Your task to perform on an android device: turn on translation in the chrome app Image 0: 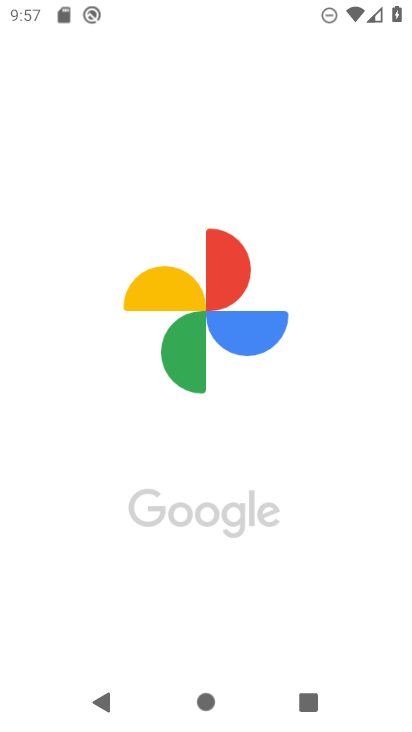
Step 0: drag from (367, 532) to (374, 117)
Your task to perform on an android device: turn on translation in the chrome app Image 1: 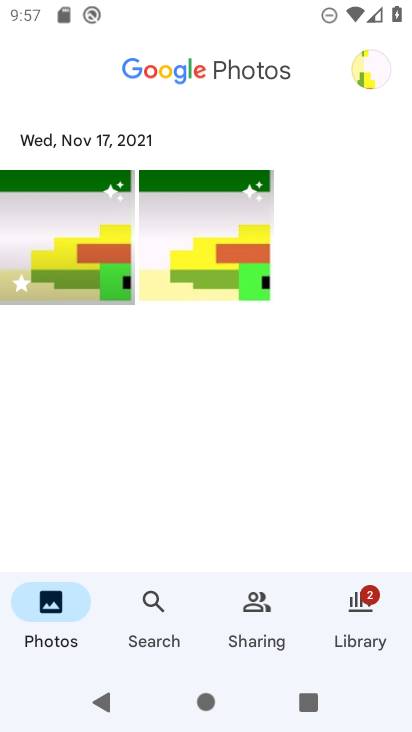
Step 1: press home button
Your task to perform on an android device: turn on translation in the chrome app Image 2: 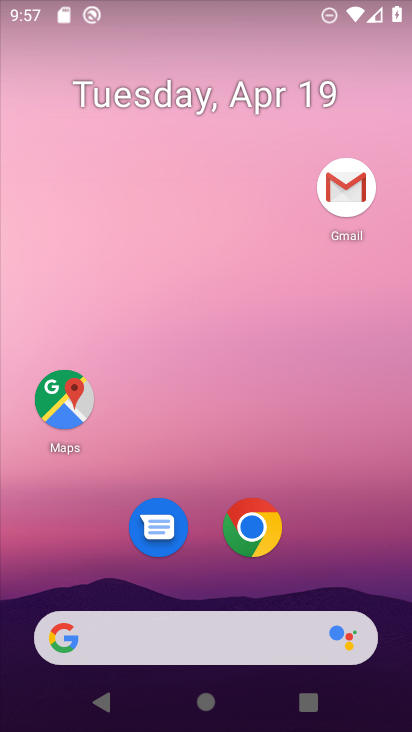
Step 2: drag from (334, 562) to (345, 97)
Your task to perform on an android device: turn on translation in the chrome app Image 3: 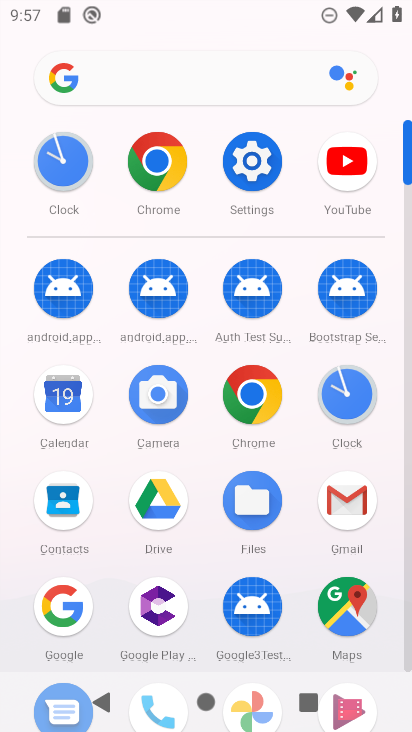
Step 3: click (159, 172)
Your task to perform on an android device: turn on translation in the chrome app Image 4: 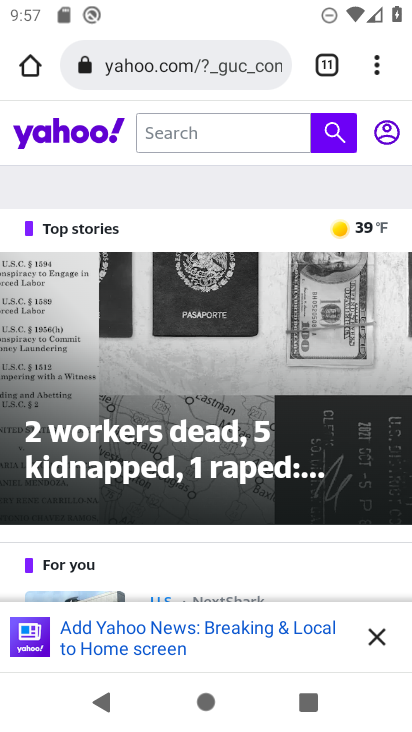
Step 4: drag from (378, 73) to (220, 544)
Your task to perform on an android device: turn on translation in the chrome app Image 5: 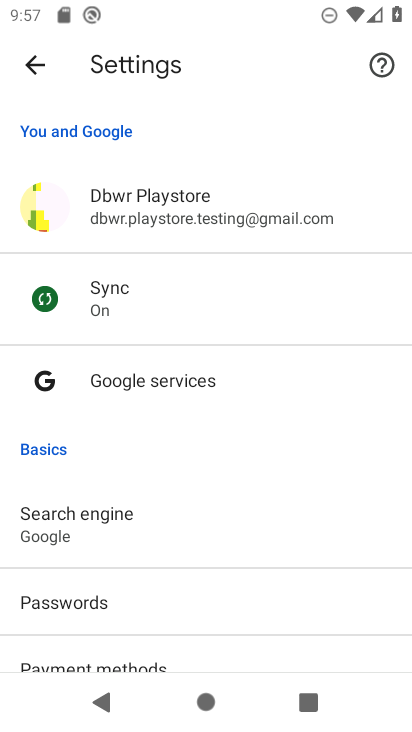
Step 5: drag from (317, 572) to (328, 144)
Your task to perform on an android device: turn on translation in the chrome app Image 6: 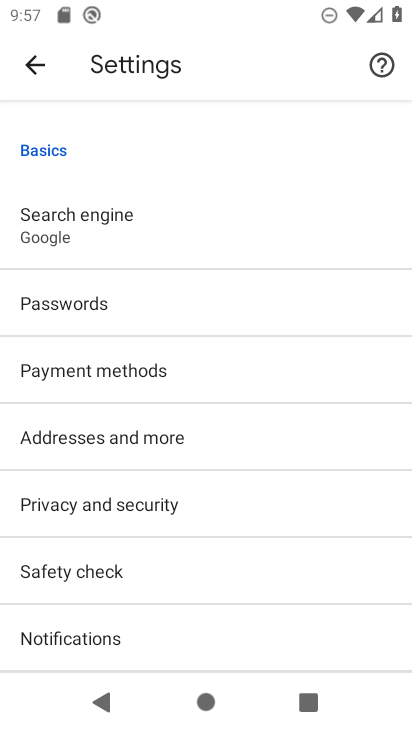
Step 6: drag from (312, 575) to (303, 231)
Your task to perform on an android device: turn on translation in the chrome app Image 7: 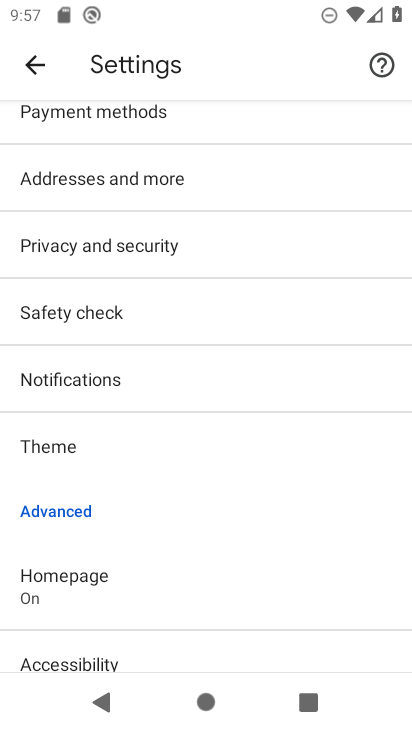
Step 7: drag from (333, 508) to (305, 188)
Your task to perform on an android device: turn on translation in the chrome app Image 8: 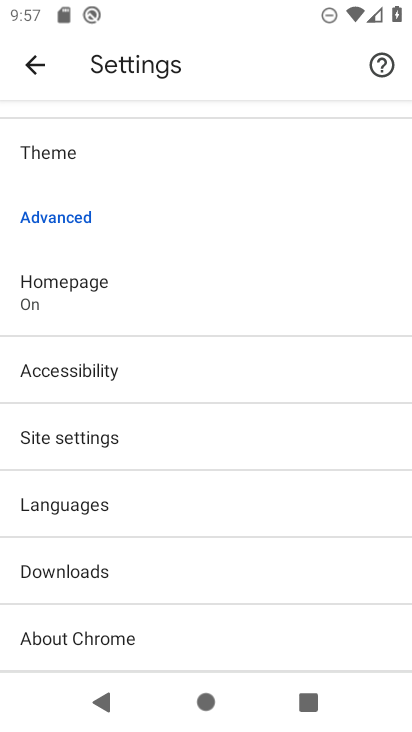
Step 8: click (145, 490)
Your task to perform on an android device: turn on translation in the chrome app Image 9: 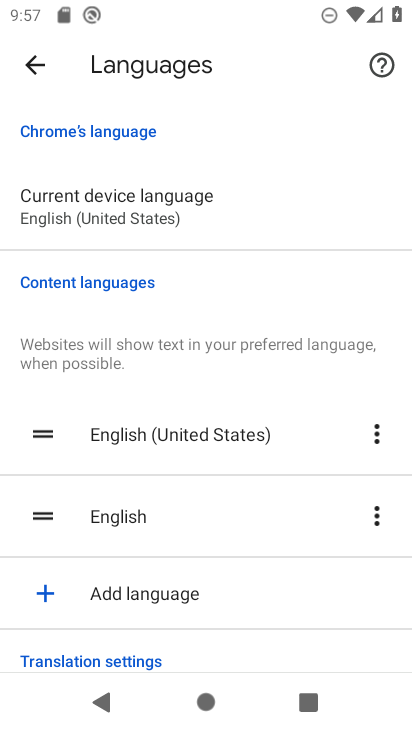
Step 9: task complete